Your task to perform on an android device: When is my next appointment? Image 0: 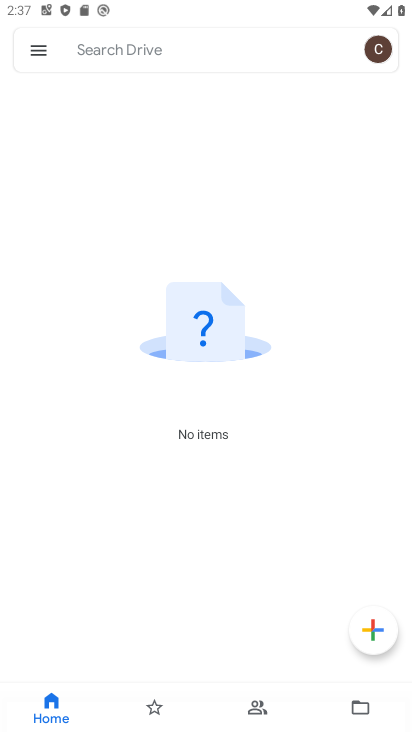
Step 0: press home button
Your task to perform on an android device: When is my next appointment? Image 1: 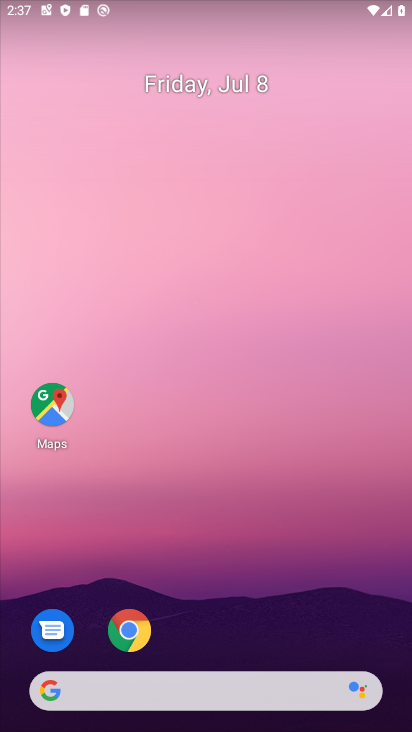
Step 1: drag from (280, 615) to (142, 17)
Your task to perform on an android device: When is my next appointment? Image 2: 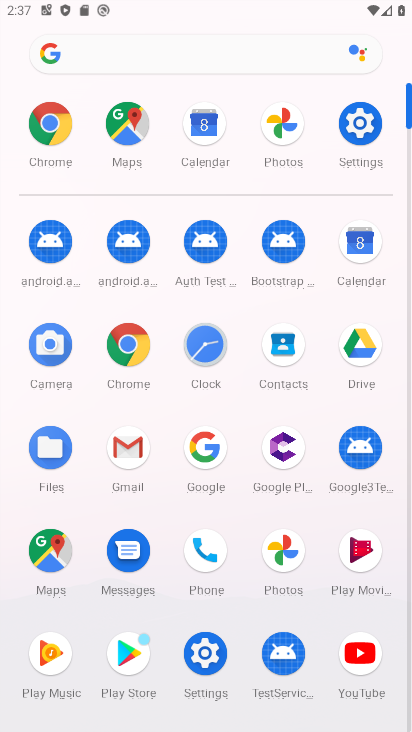
Step 2: click (344, 117)
Your task to perform on an android device: When is my next appointment? Image 3: 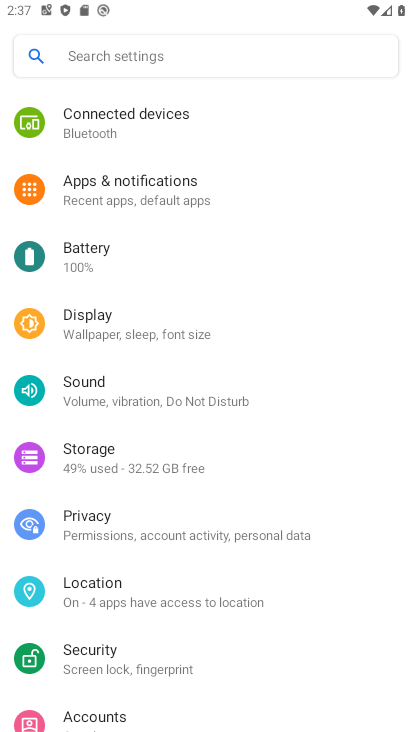
Step 3: drag from (236, 469) to (206, 281)
Your task to perform on an android device: When is my next appointment? Image 4: 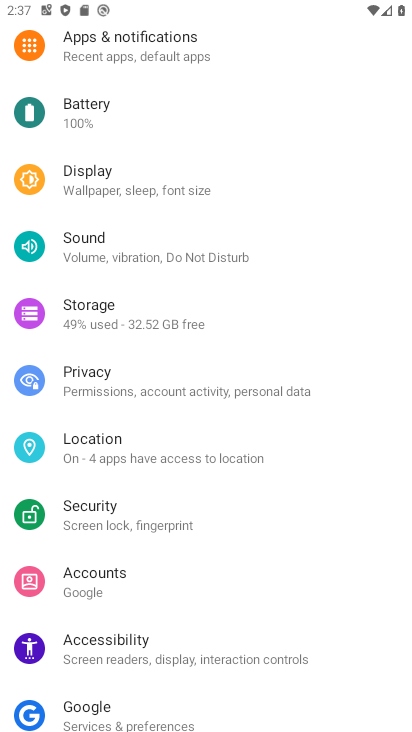
Step 4: click (206, 281)
Your task to perform on an android device: When is my next appointment? Image 5: 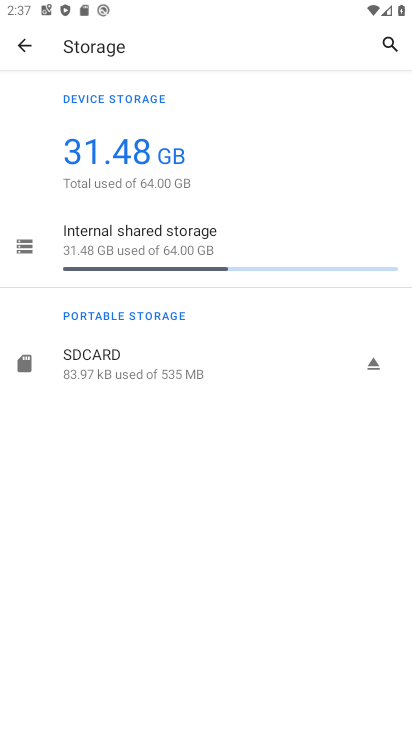
Step 5: press home button
Your task to perform on an android device: When is my next appointment? Image 6: 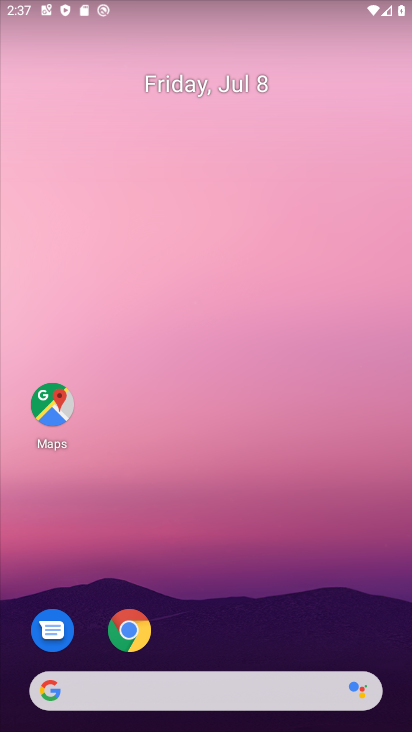
Step 6: drag from (263, 596) to (241, 211)
Your task to perform on an android device: When is my next appointment? Image 7: 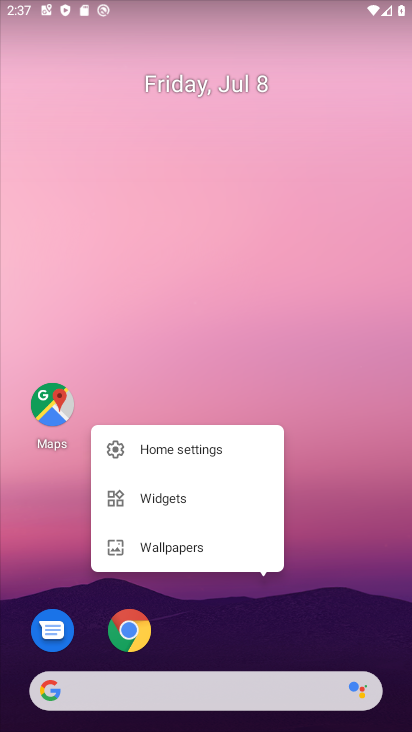
Step 7: click (256, 232)
Your task to perform on an android device: When is my next appointment? Image 8: 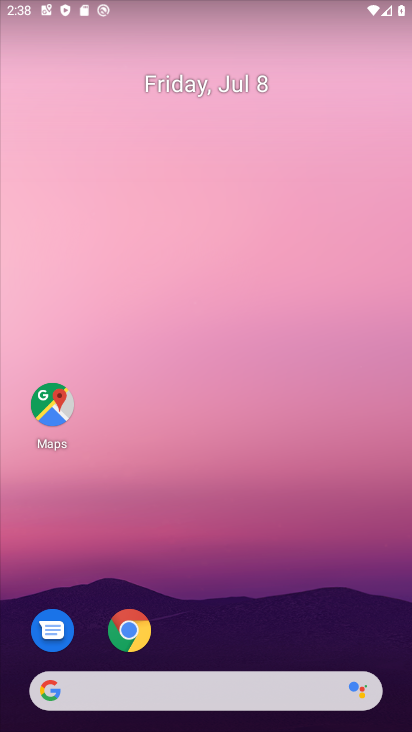
Step 8: drag from (229, 606) to (184, 86)
Your task to perform on an android device: When is my next appointment? Image 9: 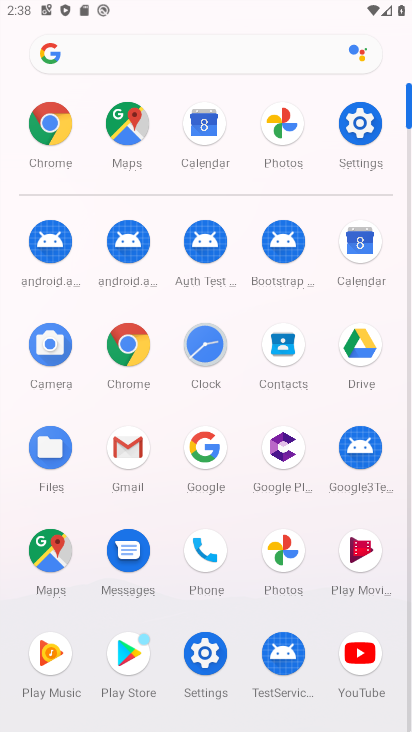
Step 9: click (212, 161)
Your task to perform on an android device: When is my next appointment? Image 10: 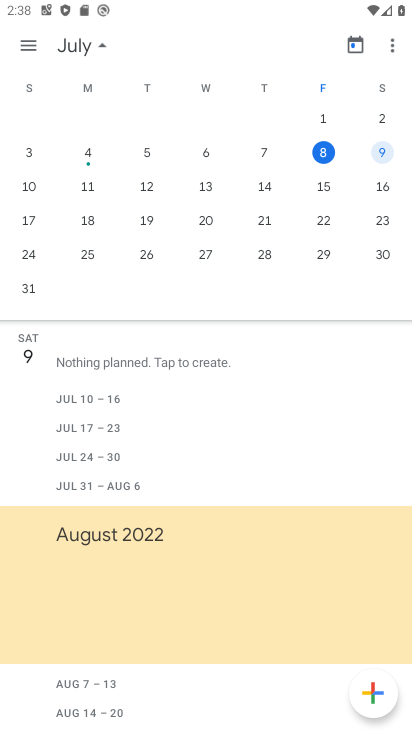
Step 10: task complete